Your task to perform on an android device: Open calendar and show me the third week of next month Image 0: 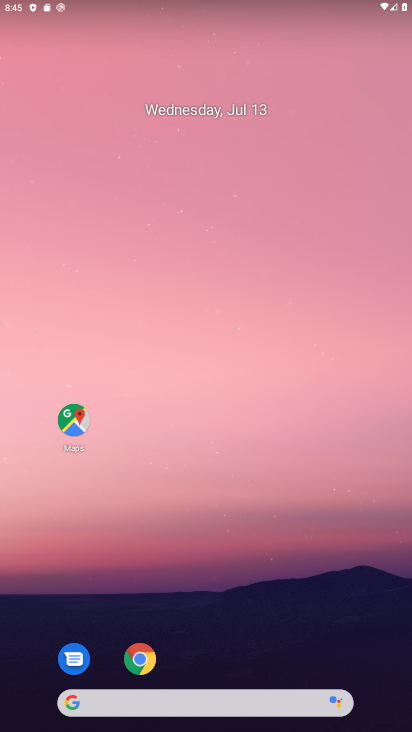
Step 0: drag from (216, 661) to (278, 129)
Your task to perform on an android device: Open calendar and show me the third week of next month Image 1: 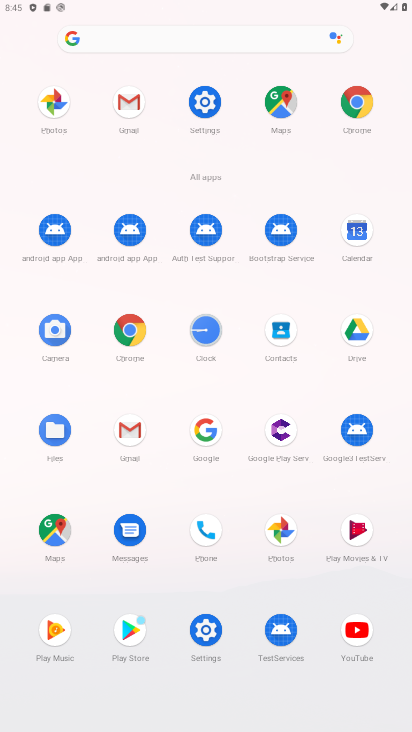
Step 1: click (359, 232)
Your task to perform on an android device: Open calendar and show me the third week of next month Image 2: 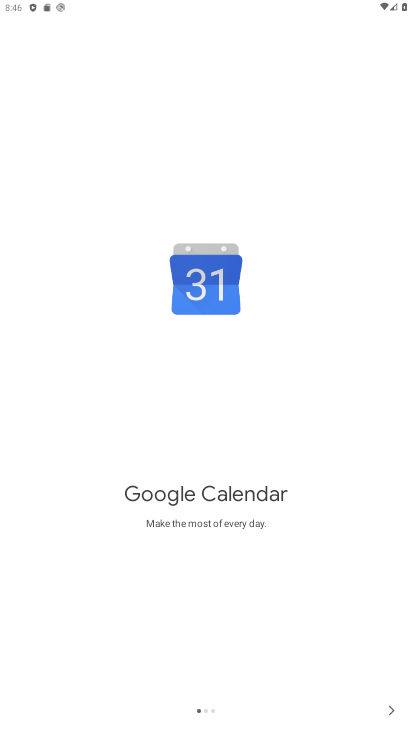
Step 2: click (387, 699)
Your task to perform on an android device: Open calendar and show me the third week of next month Image 3: 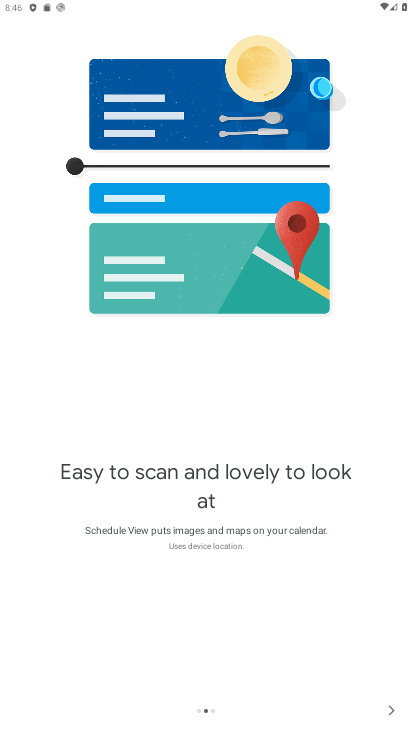
Step 3: click (396, 714)
Your task to perform on an android device: Open calendar and show me the third week of next month Image 4: 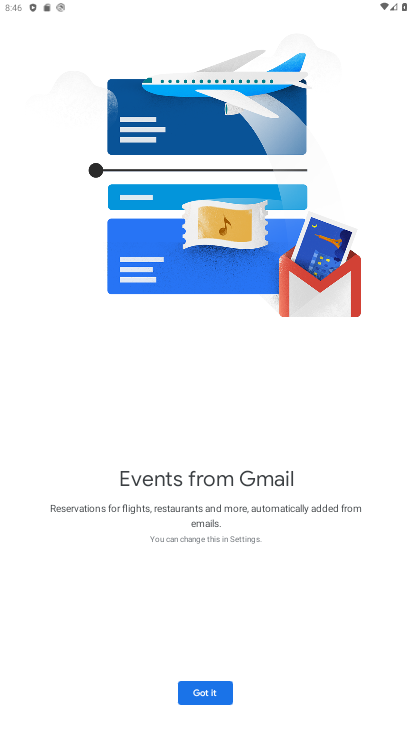
Step 4: click (210, 692)
Your task to perform on an android device: Open calendar and show me the third week of next month Image 5: 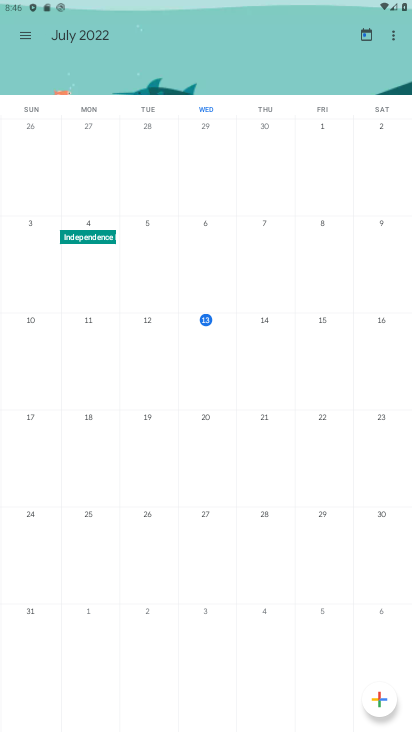
Step 5: drag from (392, 471) to (8, 433)
Your task to perform on an android device: Open calendar and show me the third week of next month Image 6: 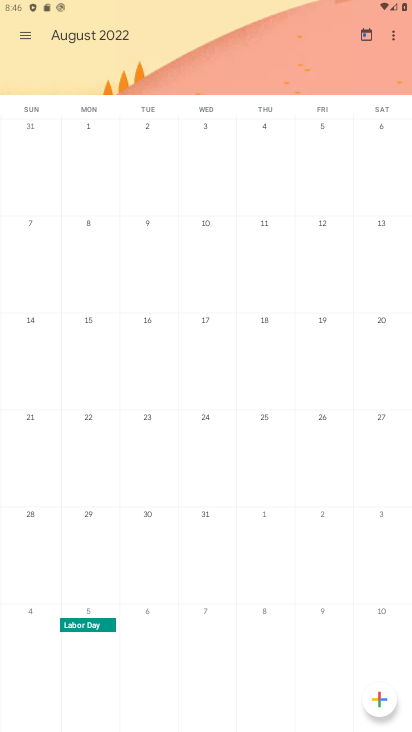
Step 6: click (207, 420)
Your task to perform on an android device: Open calendar and show me the third week of next month Image 7: 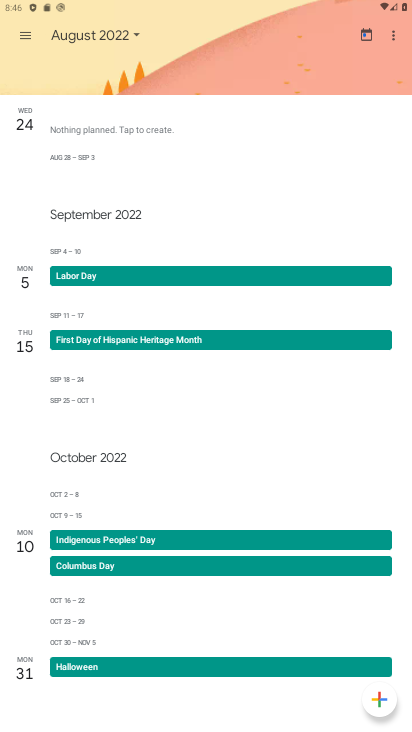
Step 7: task complete